Your task to perform on an android device: What's the weather going to be tomorrow? Image 0: 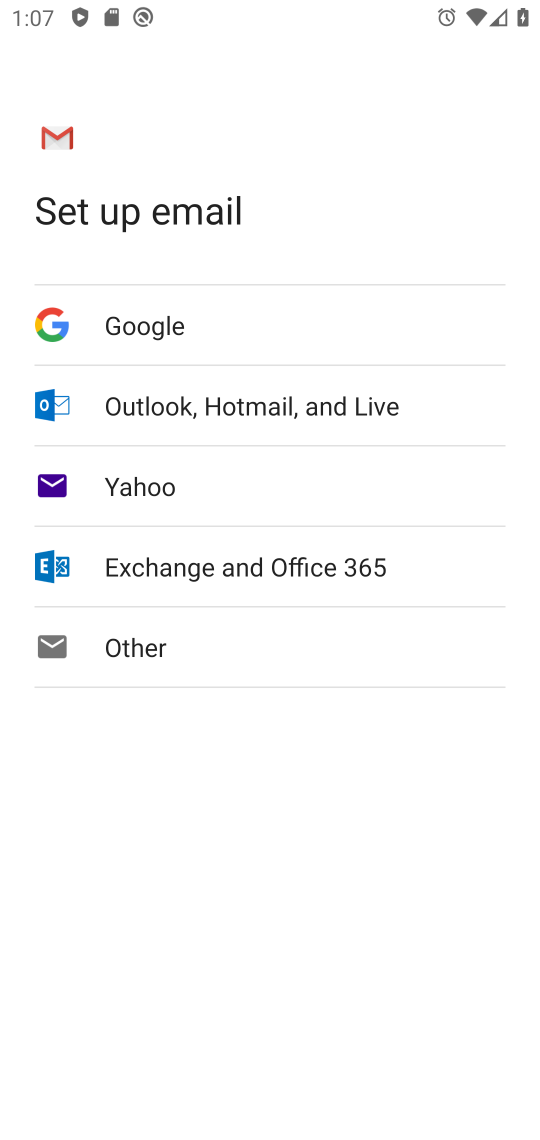
Step 0: drag from (245, 977) to (439, 186)
Your task to perform on an android device: What's the weather going to be tomorrow? Image 1: 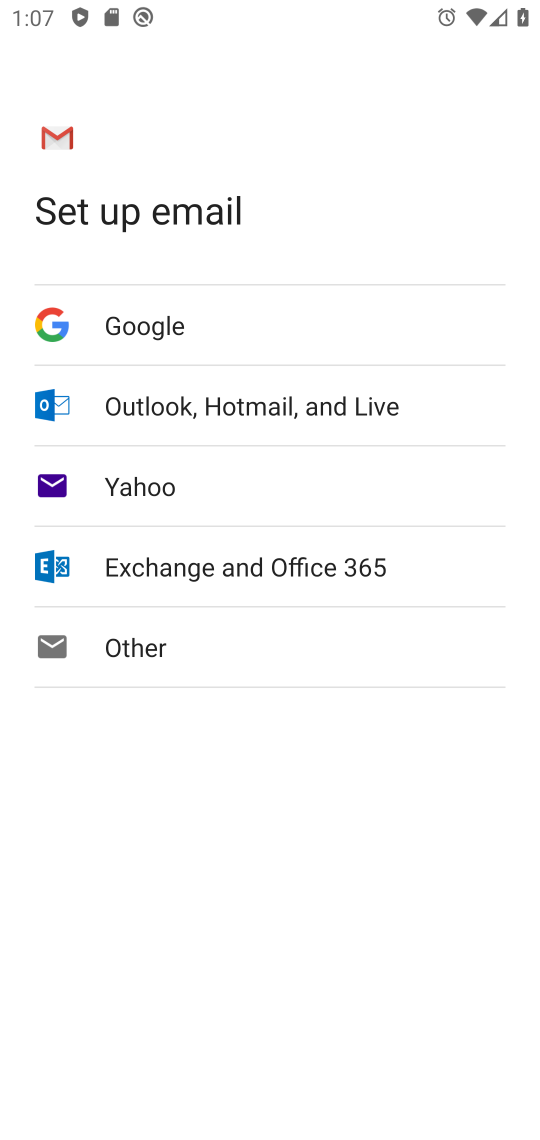
Step 1: press home button
Your task to perform on an android device: What's the weather going to be tomorrow? Image 2: 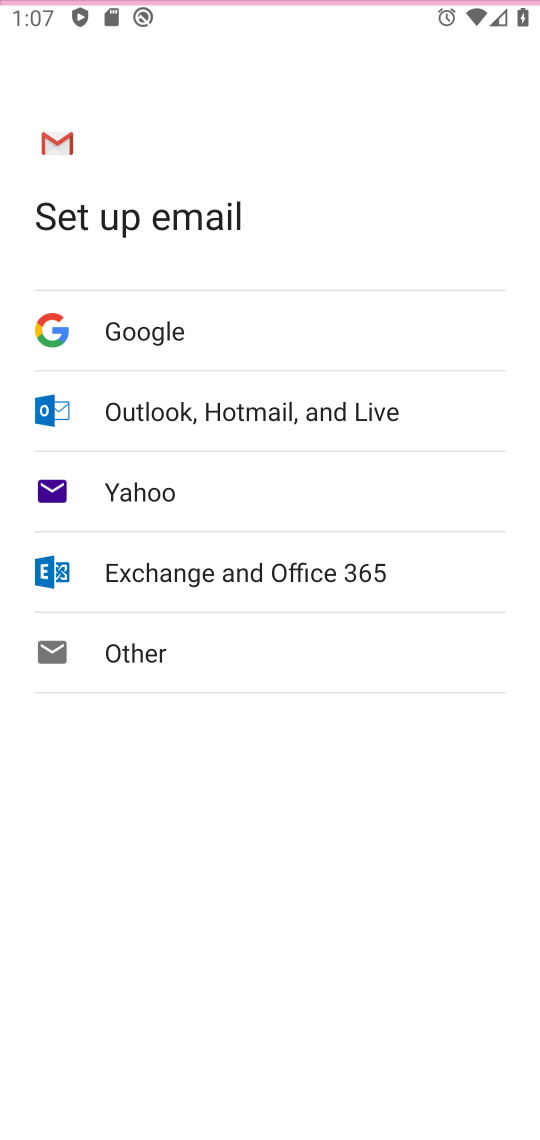
Step 2: drag from (308, 892) to (380, 60)
Your task to perform on an android device: What's the weather going to be tomorrow? Image 3: 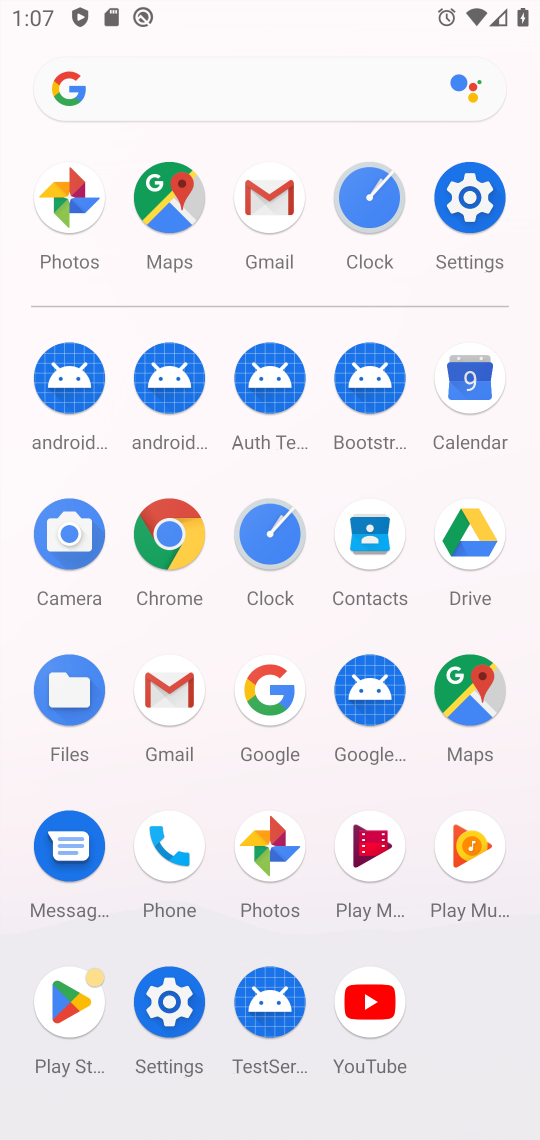
Step 3: click (470, 357)
Your task to perform on an android device: What's the weather going to be tomorrow? Image 4: 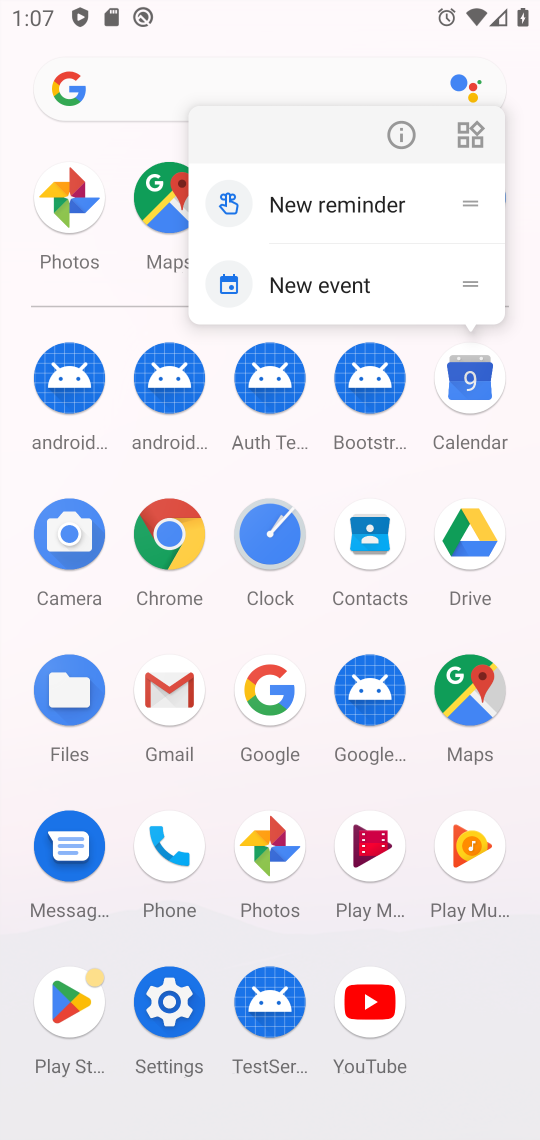
Step 4: click (164, 82)
Your task to perform on an android device: What's the weather going to be tomorrow? Image 5: 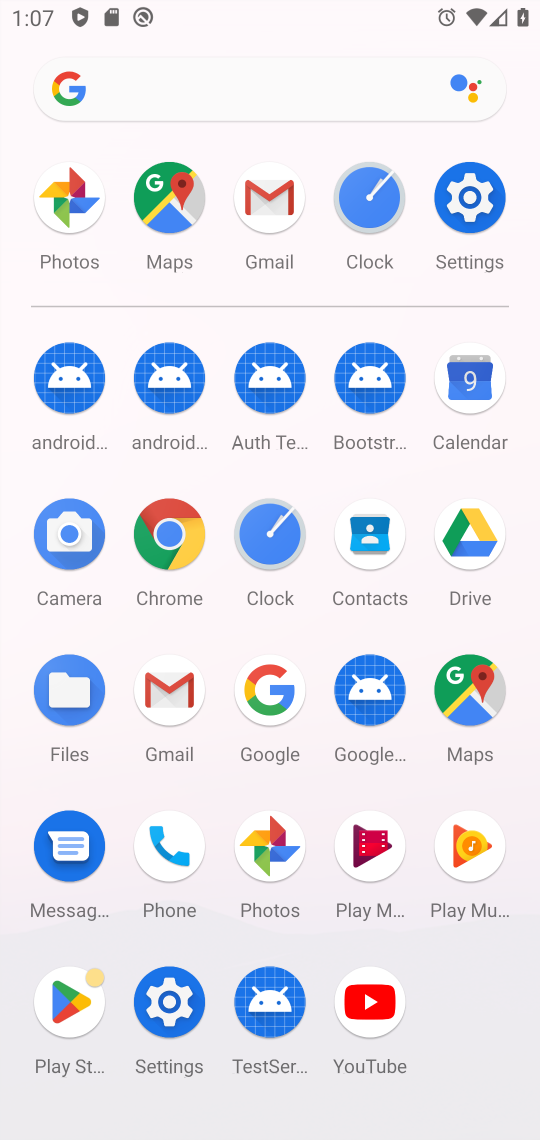
Step 5: click (179, 82)
Your task to perform on an android device: What's the weather going to be tomorrow? Image 6: 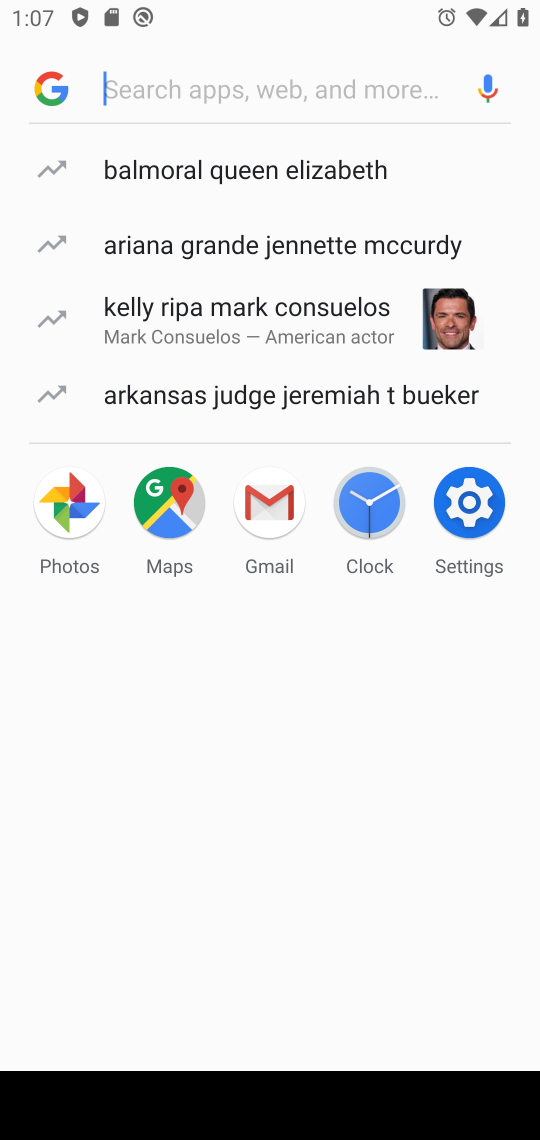
Step 6: type "What's the weather going to be tomorrow?"
Your task to perform on an android device: What's the weather going to be tomorrow? Image 7: 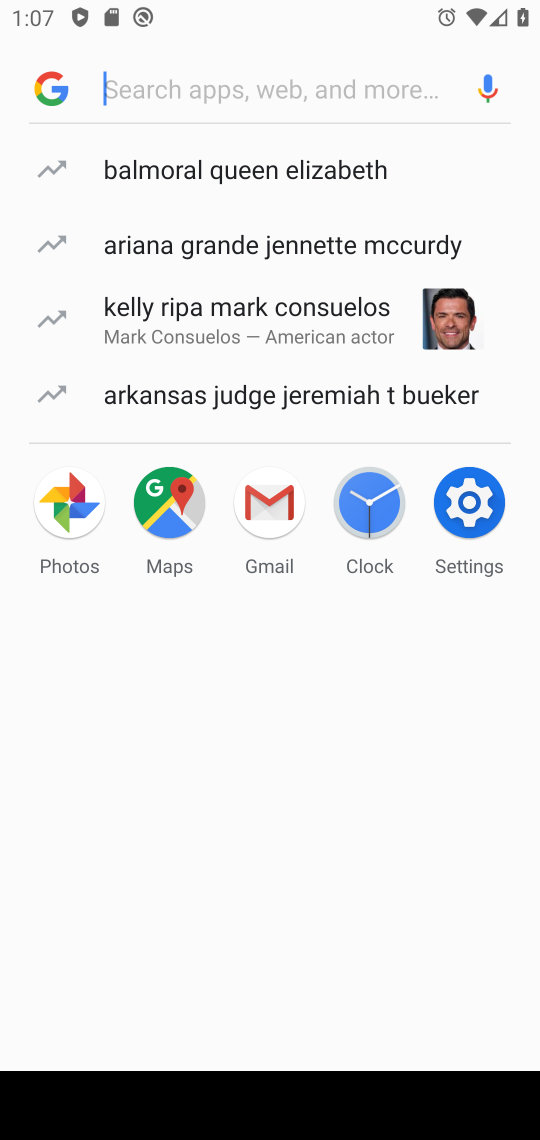
Step 7: click (177, 105)
Your task to perform on an android device: What's the weather going to be tomorrow? Image 8: 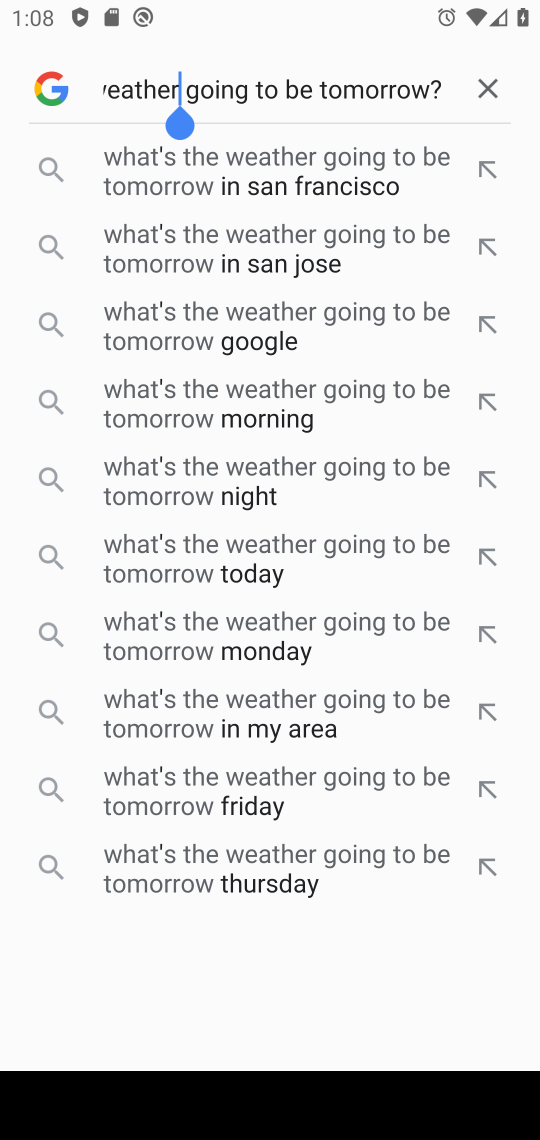
Step 8: click (188, 174)
Your task to perform on an android device: What's the weather going to be tomorrow? Image 9: 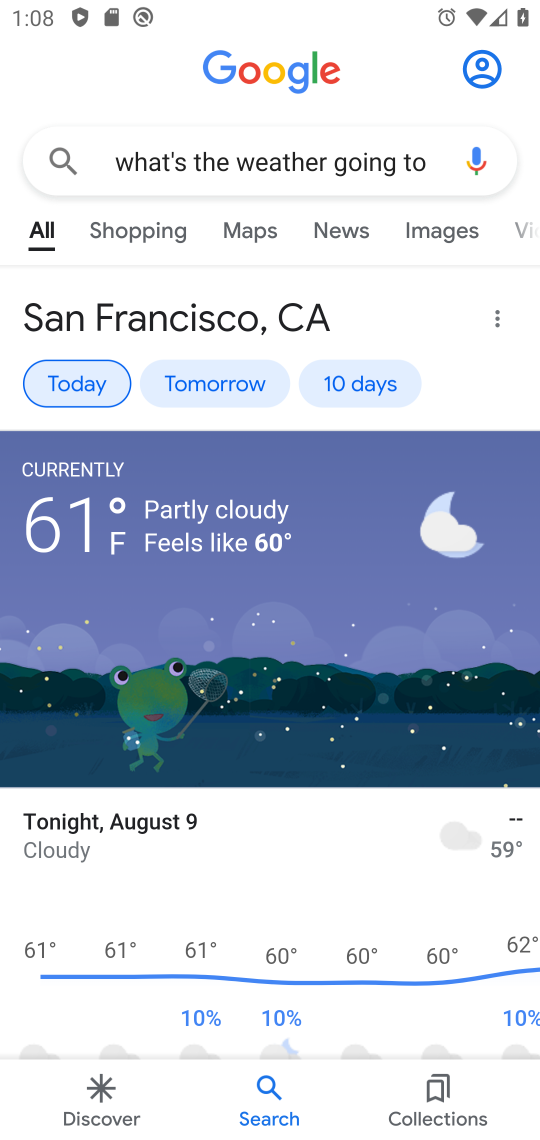
Step 9: task complete